Your task to perform on an android device: Open privacy settings Image 0: 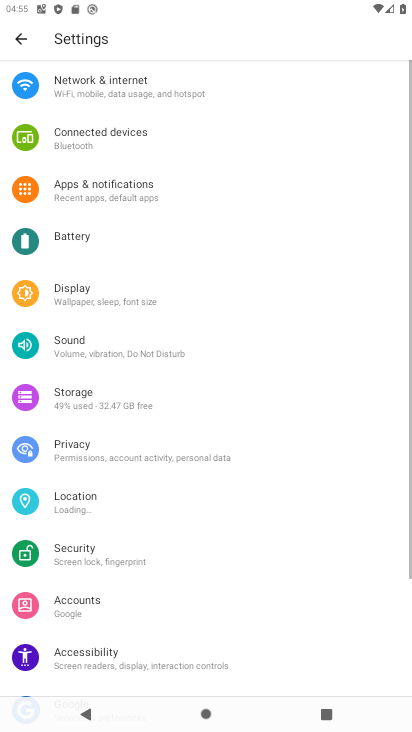
Step 0: press home button
Your task to perform on an android device: Open privacy settings Image 1: 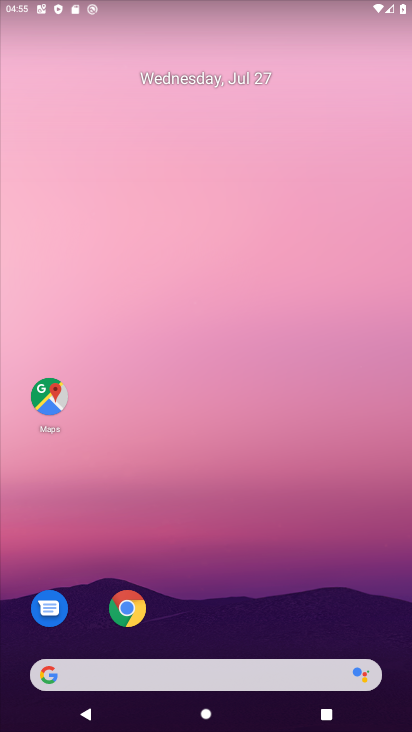
Step 1: drag from (218, 611) to (90, 383)
Your task to perform on an android device: Open privacy settings Image 2: 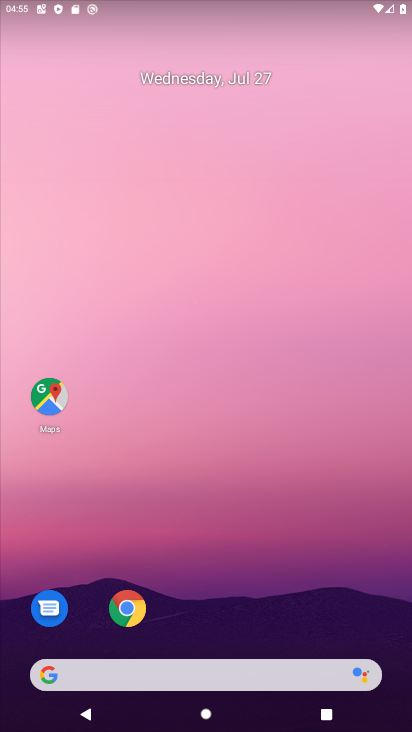
Step 2: drag from (286, 624) to (272, 318)
Your task to perform on an android device: Open privacy settings Image 3: 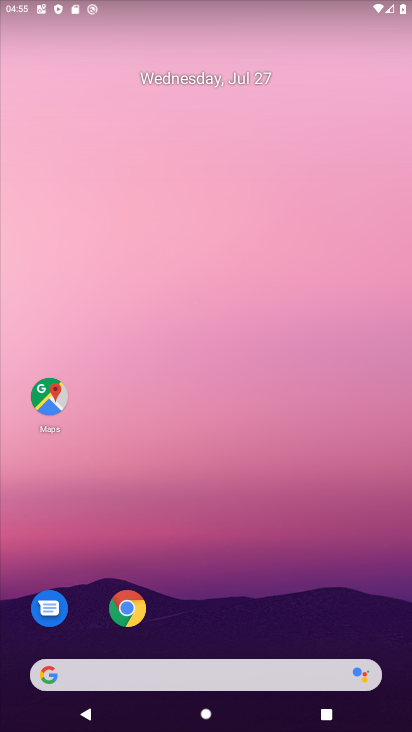
Step 3: drag from (187, 574) to (226, 308)
Your task to perform on an android device: Open privacy settings Image 4: 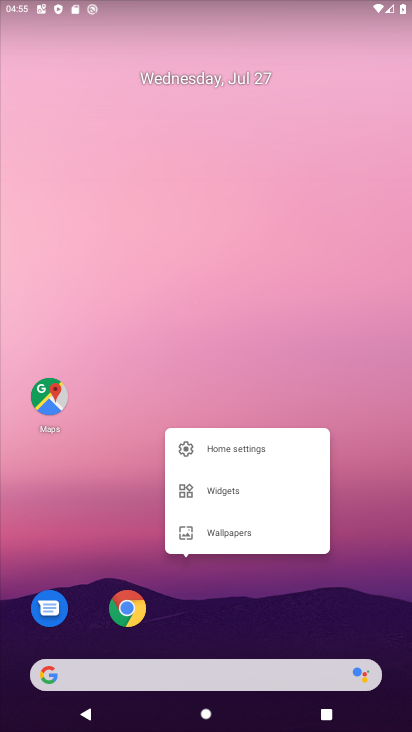
Step 4: click (261, 379)
Your task to perform on an android device: Open privacy settings Image 5: 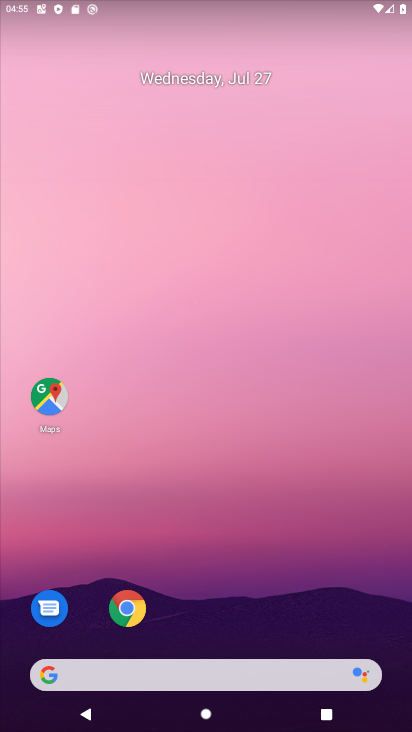
Step 5: click (260, 378)
Your task to perform on an android device: Open privacy settings Image 6: 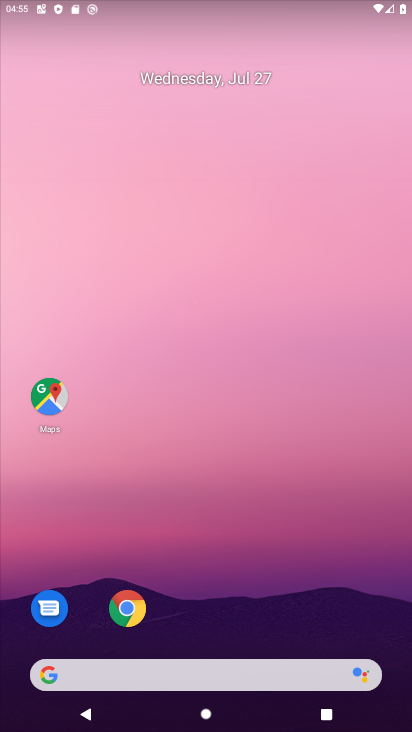
Step 6: drag from (294, 640) to (27, 335)
Your task to perform on an android device: Open privacy settings Image 7: 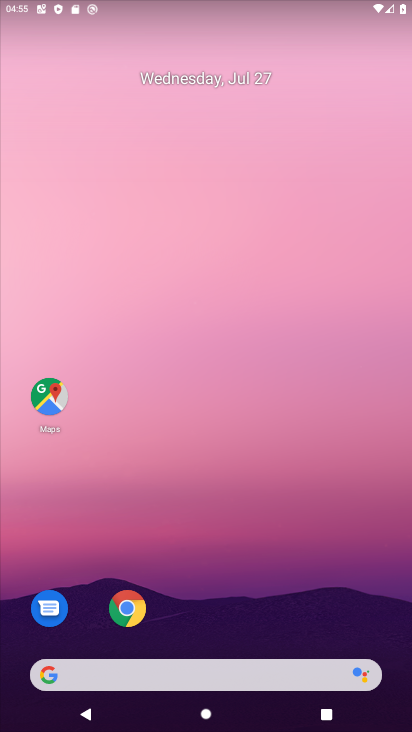
Step 7: drag from (374, 527) to (55, 22)
Your task to perform on an android device: Open privacy settings Image 8: 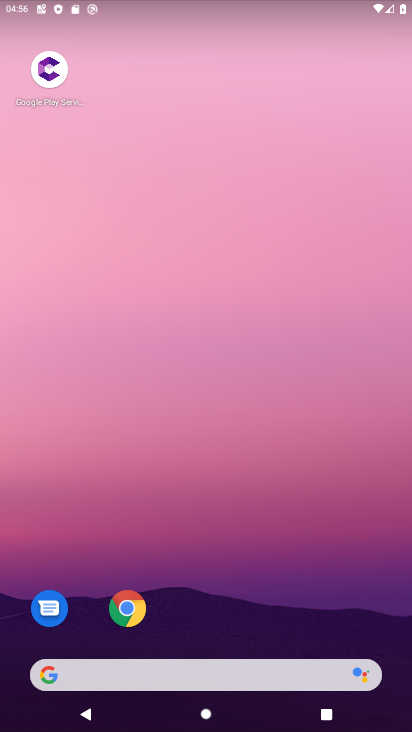
Step 8: drag from (255, 640) to (173, 40)
Your task to perform on an android device: Open privacy settings Image 9: 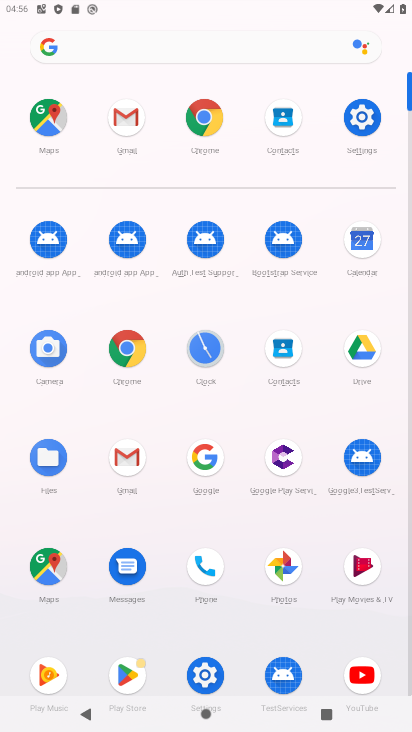
Step 9: click (340, 108)
Your task to perform on an android device: Open privacy settings Image 10: 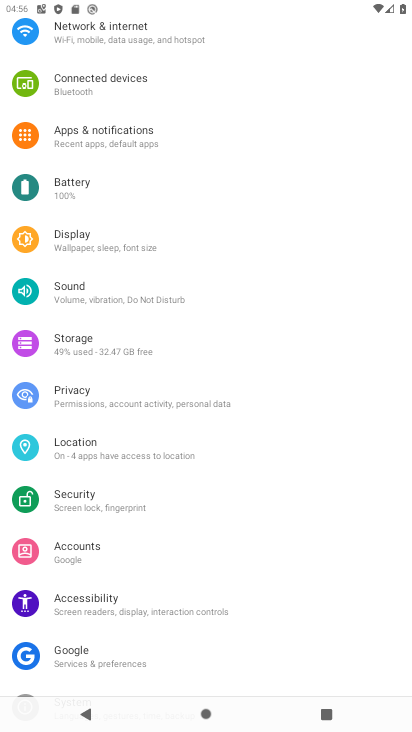
Step 10: click (76, 394)
Your task to perform on an android device: Open privacy settings Image 11: 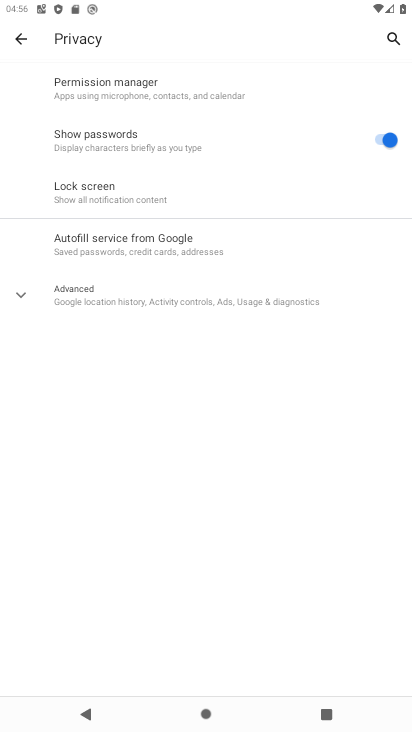
Step 11: task complete